Your task to perform on an android device: allow cookies in the chrome app Image 0: 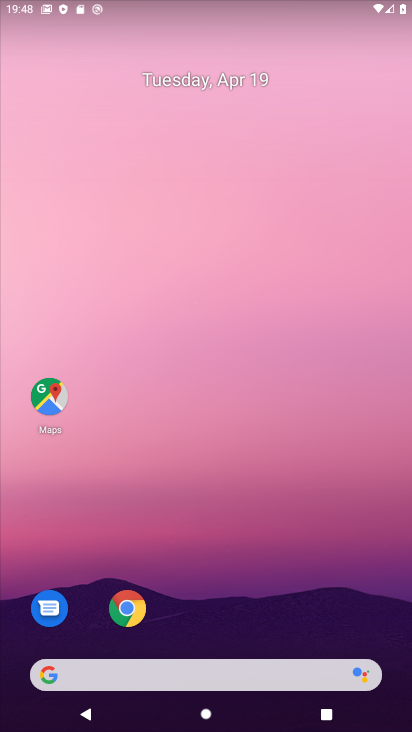
Step 0: click (137, 611)
Your task to perform on an android device: allow cookies in the chrome app Image 1: 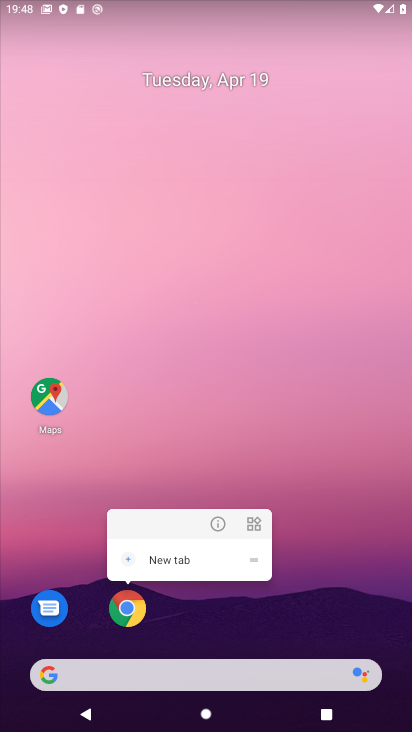
Step 1: click (127, 611)
Your task to perform on an android device: allow cookies in the chrome app Image 2: 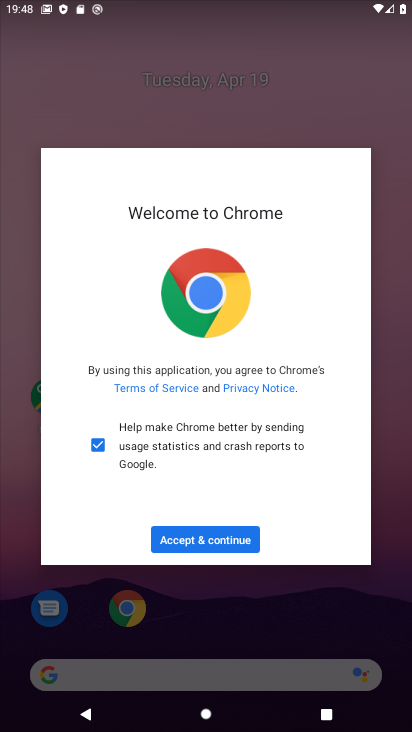
Step 2: click (184, 551)
Your task to perform on an android device: allow cookies in the chrome app Image 3: 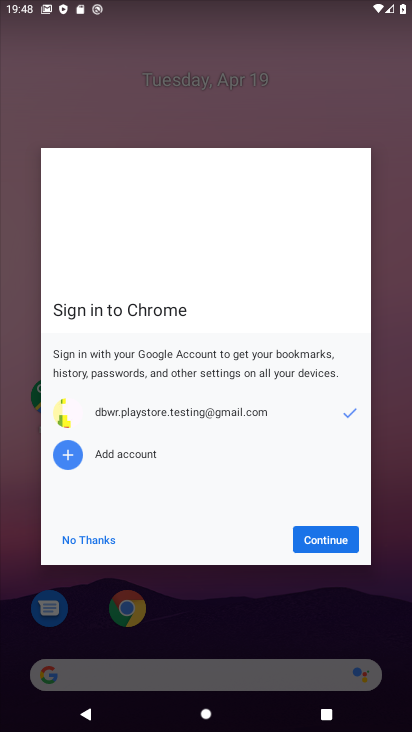
Step 3: click (316, 541)
Your task to perform on an android device: allow cookies in the chrome app Image 4: 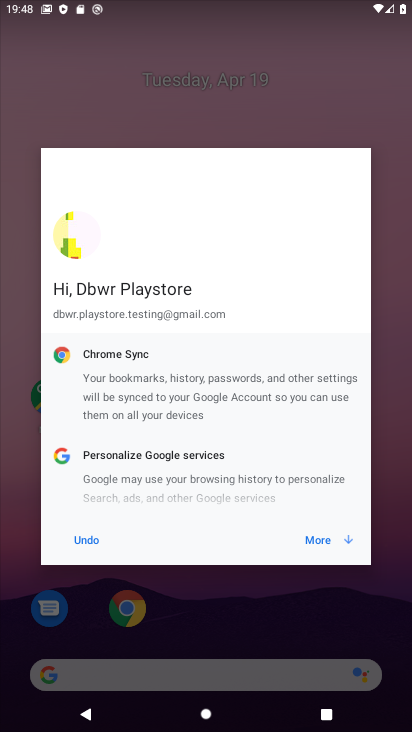
Step 4: click (316, 541)
Your task to perform on an android device: allow cookies in the chrome app Image 5: 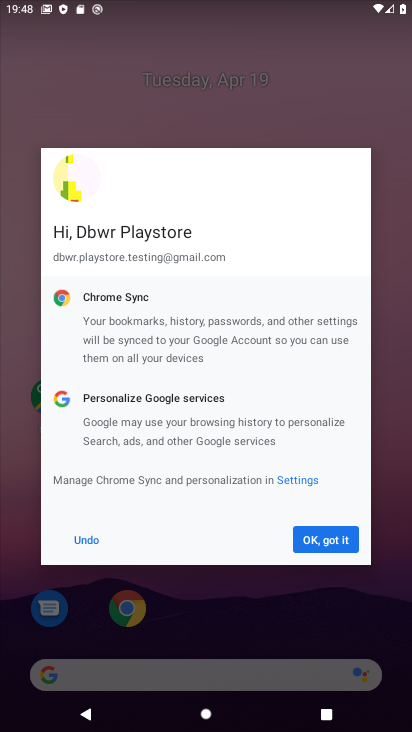
Step 5: click (316, 541)
Your task to perform on an android device: allow cookies in the chrome app Image 6: 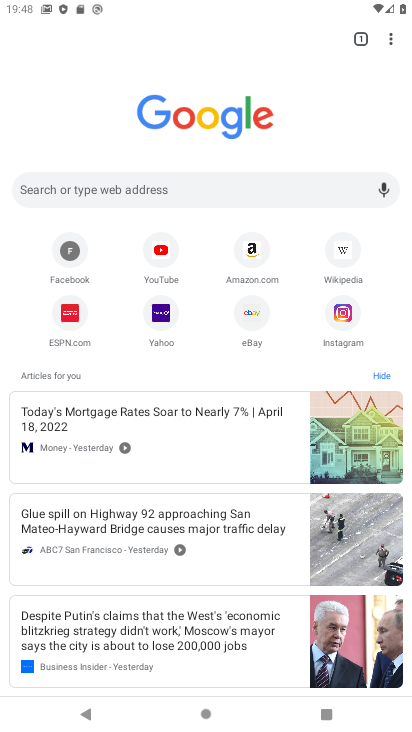
Step 6: click (379, 44)
Your task to perform on an android device: allow cookies in the chrome app Image 7: 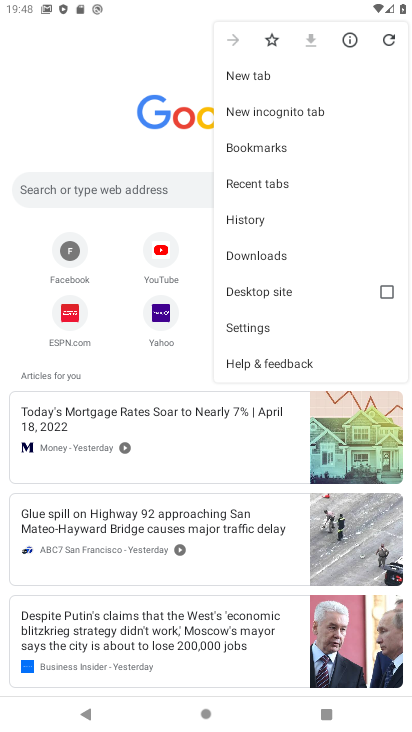
Step 7: click (270, 336)
Your task to perform on an android device: allow cookies in the chrome app Image 8: 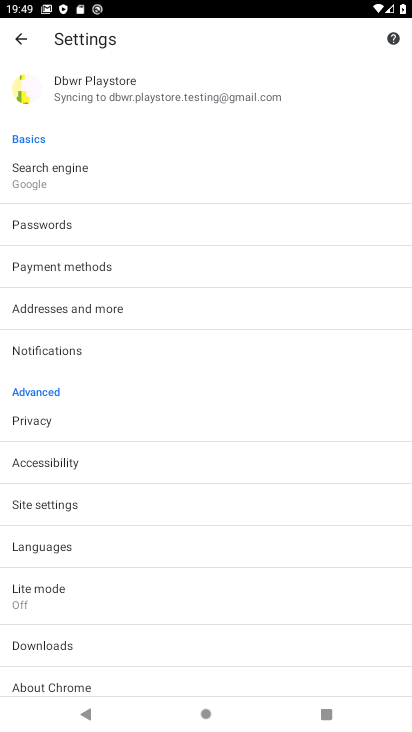
Step 8: click (242, 497)
Your task to perform on an android device: allow cookies in the chrome app Image 9: 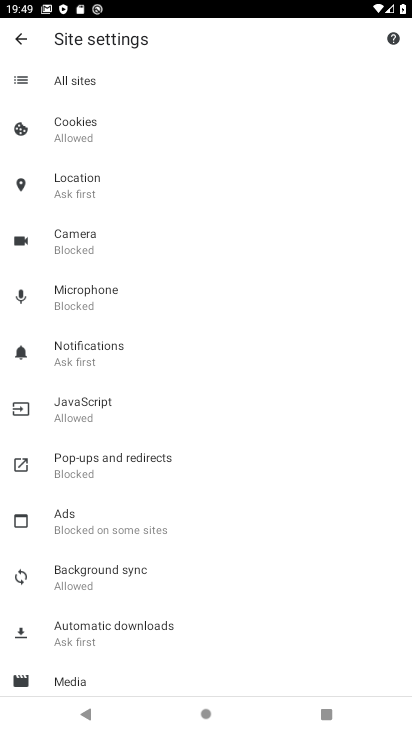
Step 9: task complete